Your task to perform on an android device: turn pop-ups on in chrome Image 0: 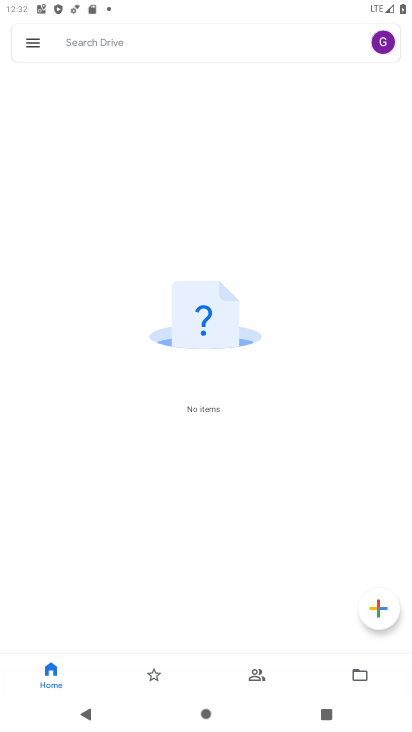
Step 0: press home button
Your task to perform on an android device: turn pop-ups on in chrome Image 1: 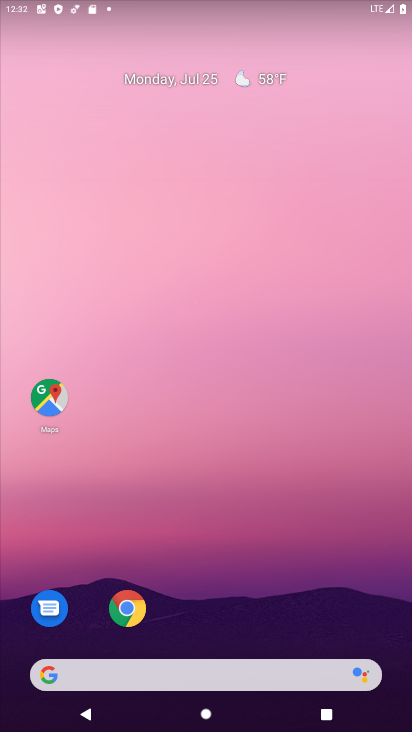
Step 1: click (128, 607)
Your task to perform on an android device: turn pop-ups on in chrome Image 2: 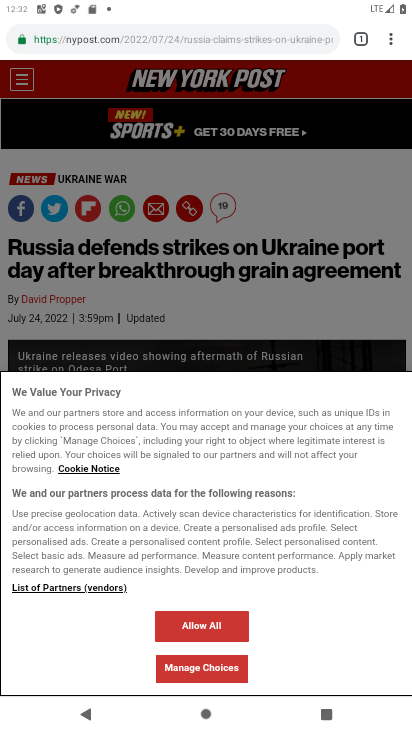
Step 2: click (392, 40)
Your task to perform on an android device: turn pop-ups on in chrome Image 3: 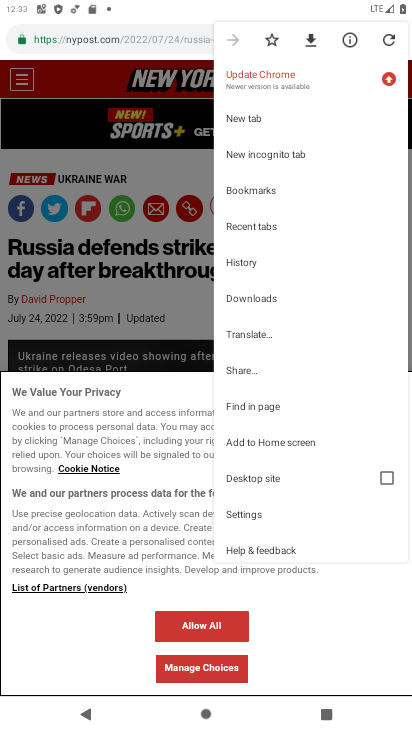
Step 3: click (243, 512)
Your task to perform on an android device: turn pop-ups on in chrome Image 4: 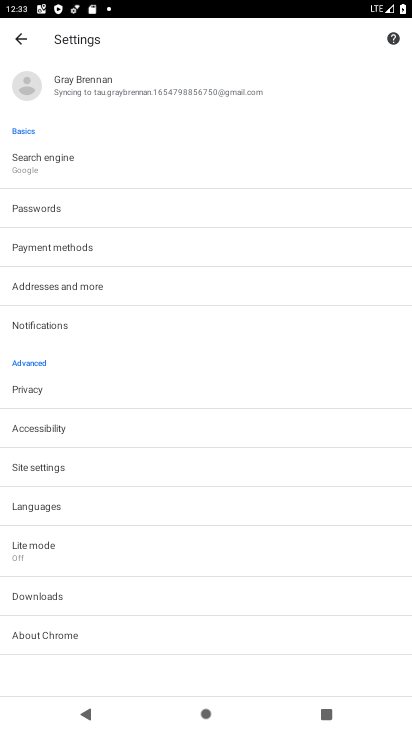
Step 4: click (56, 470)
Your task to perform on an android device: turn pop-ups on in chrome Image 5: 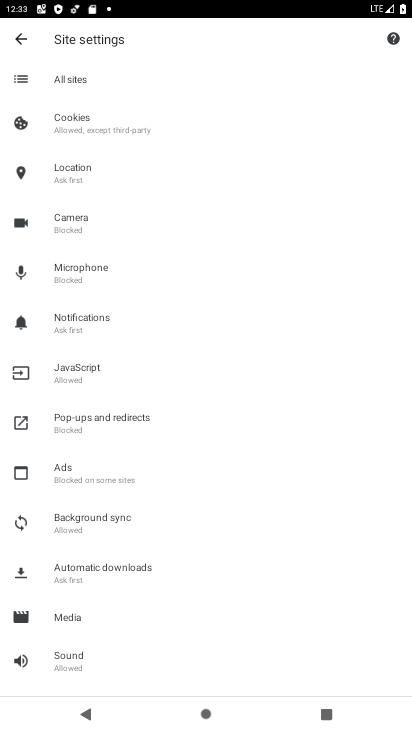
Step 5: click (126, 408)
Your task to perform on an android device: turn pop-ups on in chrome Image 6: 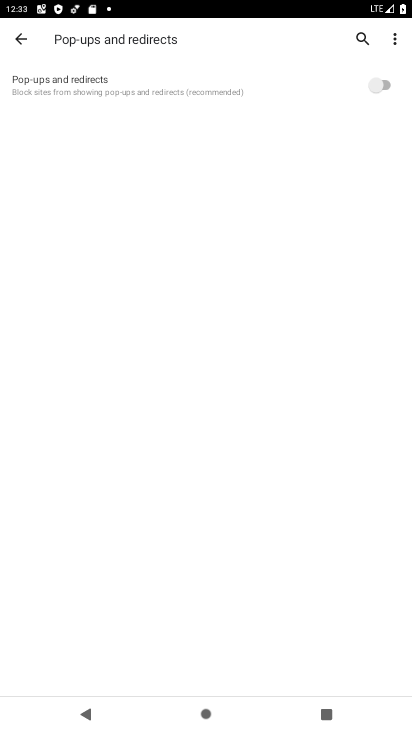
Step 6: click (375, 85)
Your task to perform on an android device: turn pop-ups on in chrome Image 7: 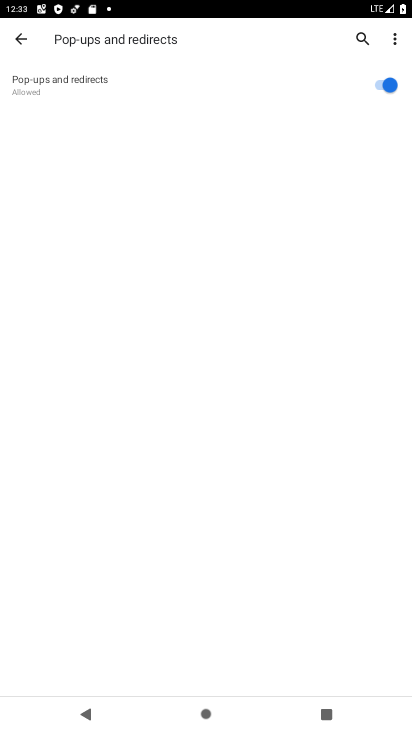
Step 7: task complete